Your task to perform on an android device: toggle pop-ups in chrome Image 0: 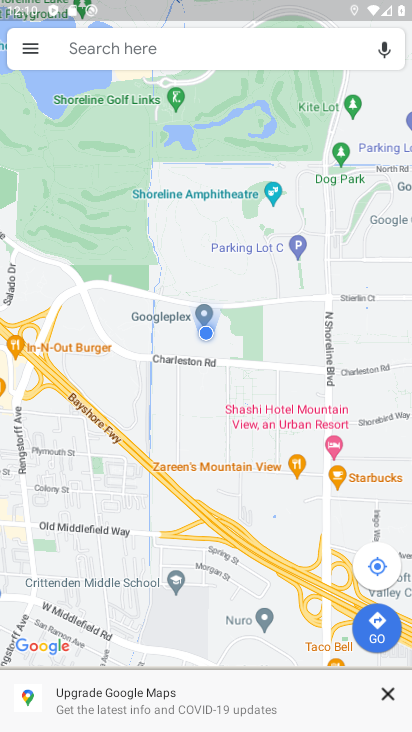
Step 0: press home button
Your task to perform on an android device: toggle pop-ups in chrome Image 1: 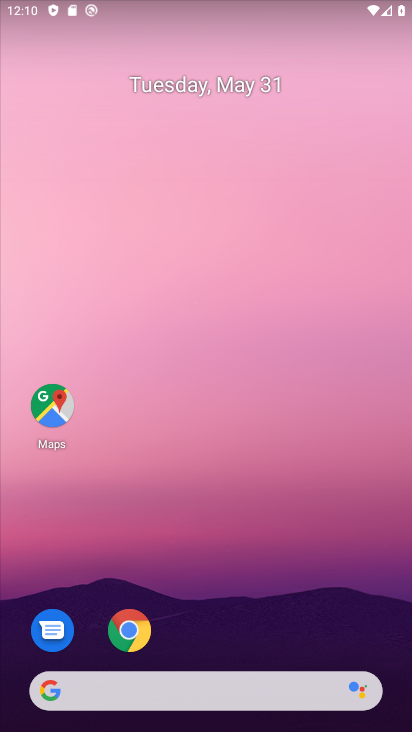
Step 1: click (131, 631)
Your task to perform on an android device: toggle pop-ups in chrome Image 2: 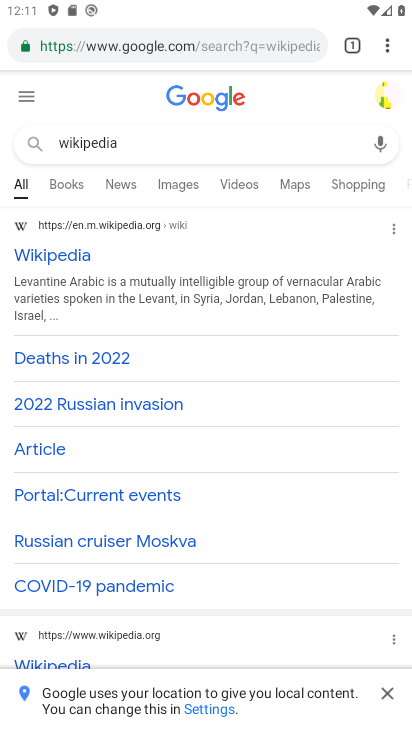
Step 2: click (384, 45)
Your task to perform on an android device: toggle pop-ups in chrome Image 3: 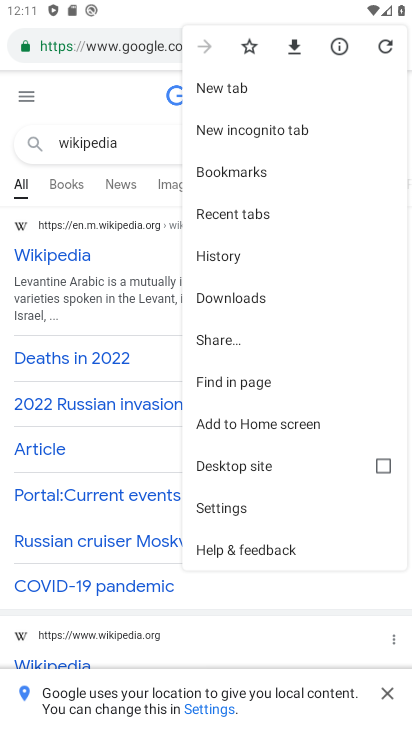
Step 3: click (230, 512)
Your task to perform on an android device: toggle pop-ups in chrome Image 4: 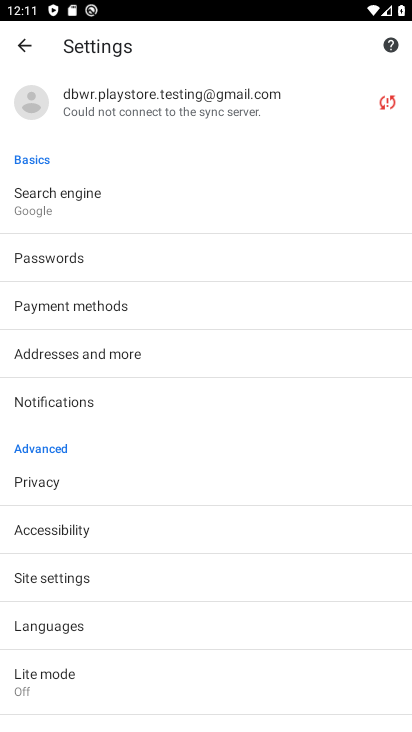
Step 4: click (51, 581)
Your task to perform on an android device: toggle pop-ups in chrome Image 5: 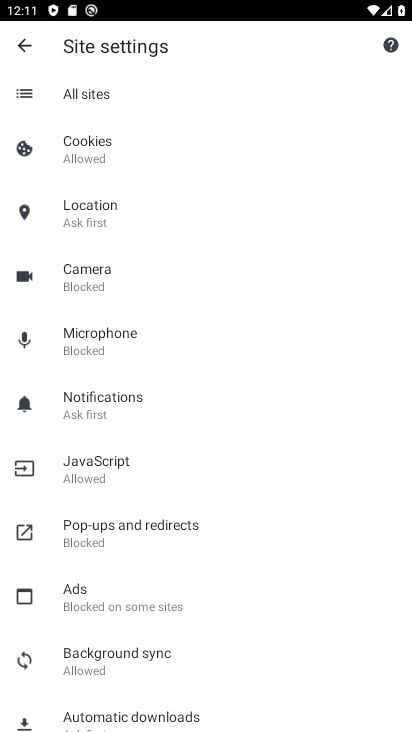
Step 5: click (164, 533)
Your task to perform on an android device: toggle pop-ups in chrome Image 6: 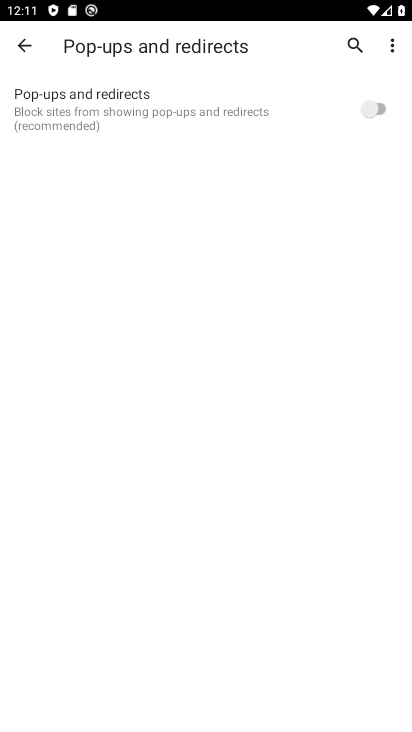
Step 6: click (374, 101)
Your task to perform on an android device: toggle pop-ups in chrome Image 7: 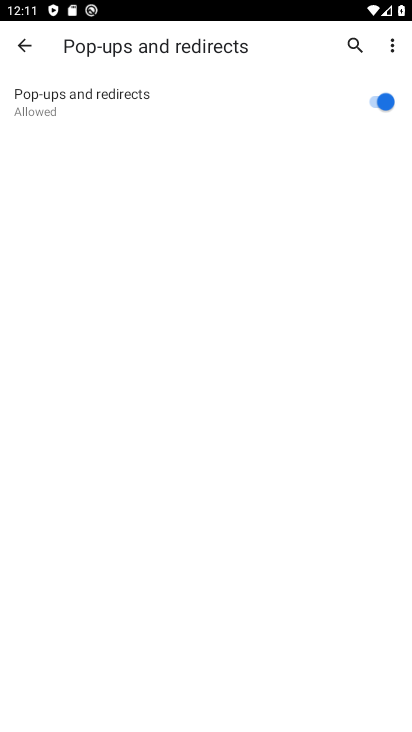
Step 7: task complete